Your task to perform on an android device: toggle location history Image 0: 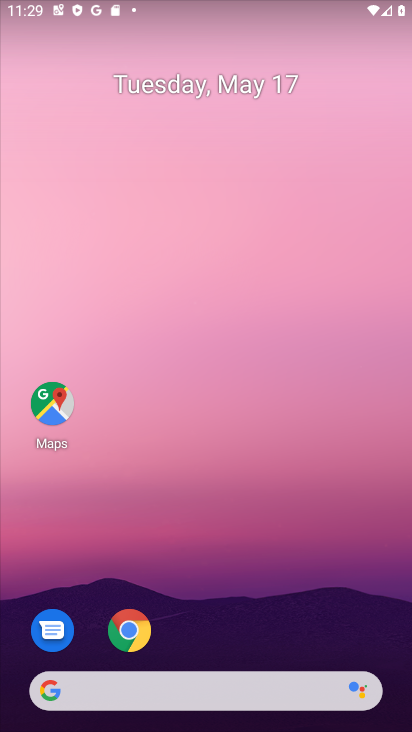
Step 0: drag from (166, 657) to (290, 191)
Your task to perform on an android device: toggle location history Image 1: 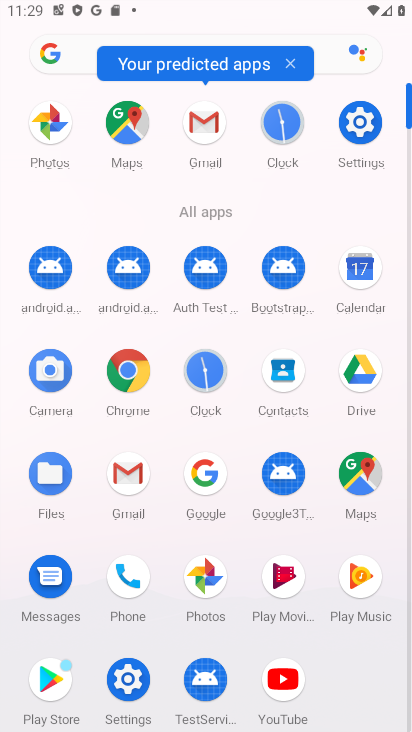
Step 1: drag from (202, 655) to (254, 468)
Your task to perform on an android device: toggle location history Image 2: 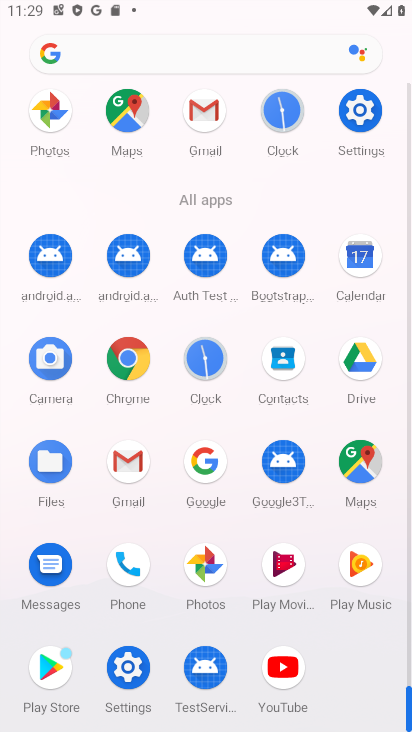
Step 2: click (123, 678)
Your task to perform on an android device: toggle location history Image 3: 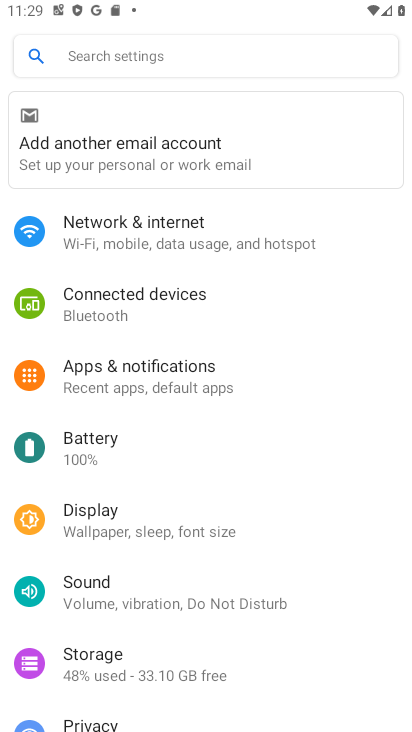
Step 3: drag from (124, 630) to (324, 172)
Your task to perform on an android device: toggle location history Image 4: 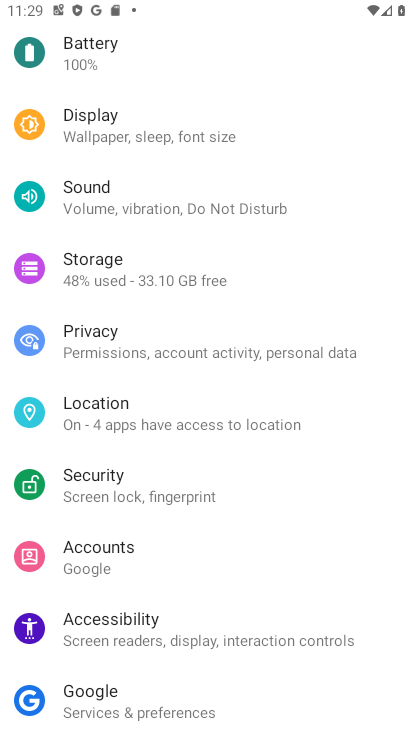
Step 4: click (156, 422)
Your task to perform on an android device: toggle location history Image 5: 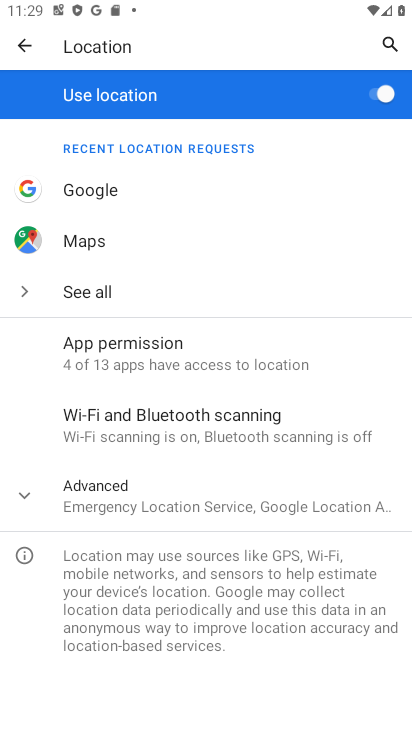
Step 5: click (185, 477)
Your task to perform on an android device: toggle location history Image 6: 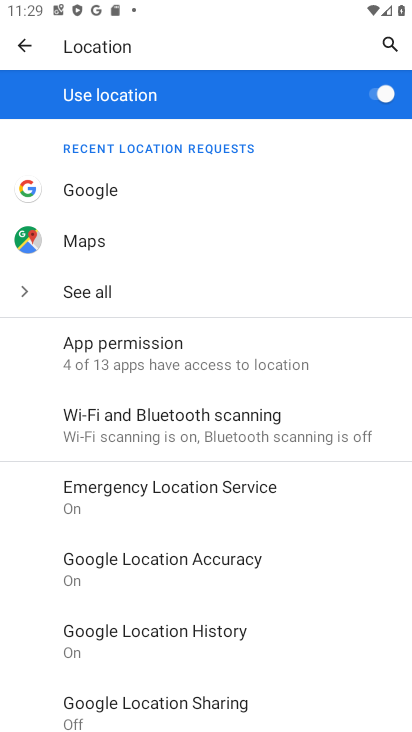
Step 6: drag from (168, 658) to (221, 474)
Your task to perform on an android device: toggle location history Image 7: 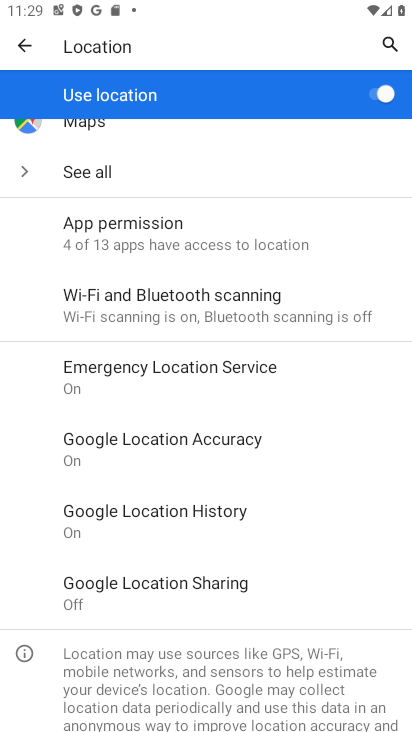
Step 7: click (192, 508)
Your task to perform on an android device: toggle location history Image 8: 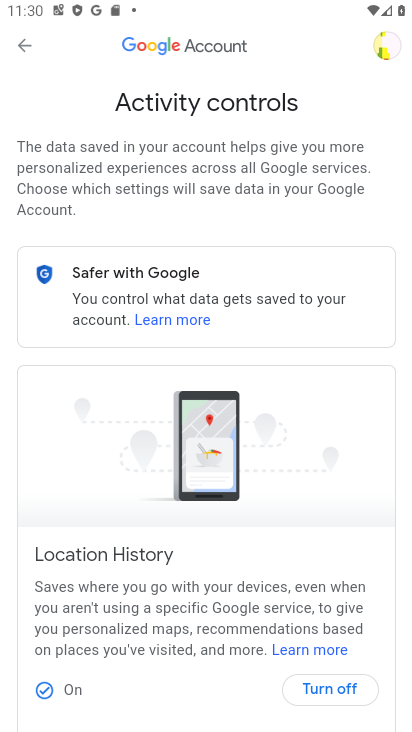
Step 8: drag from (162, 593) to (261, 314)
Your task to perform on an android device: toggle location history Image 9: 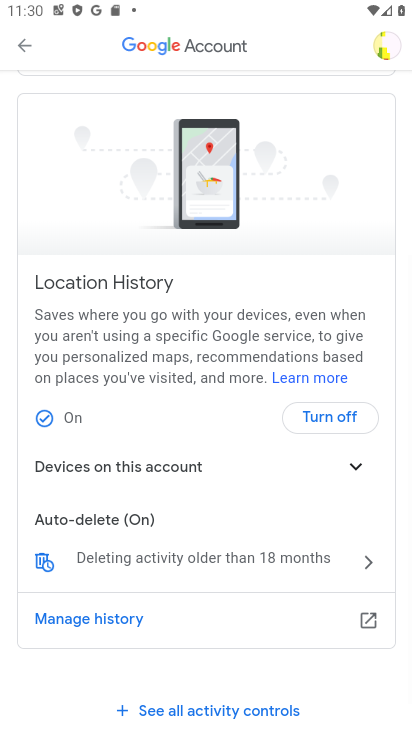
Step 9: click (331, 418)
Your task to perform on an android device: toggle location history Image 10: 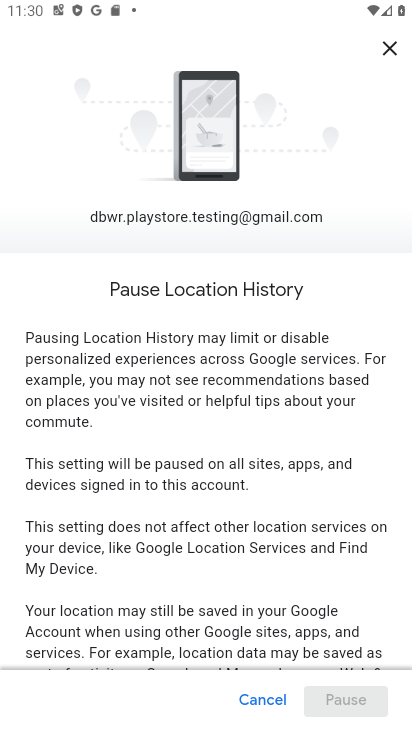
Step 10: drag from (290, 612) to (387, 179)
Your task to perform on an android device: toggle location history Image 11: 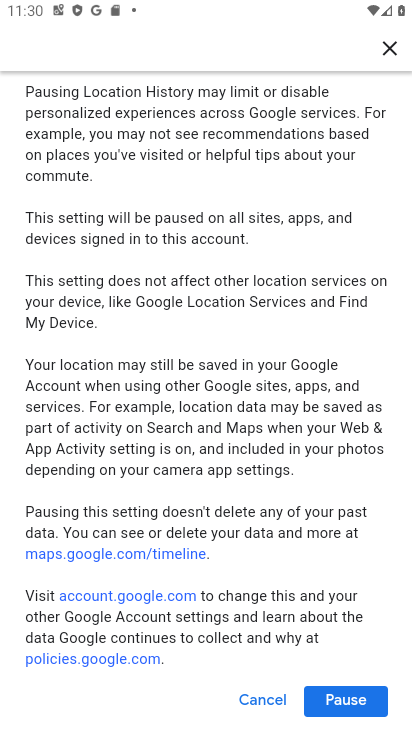
Step 11: drag from (135, 551) to (252, 205)
Your task to perform on an android device: toggle location history Image 12: 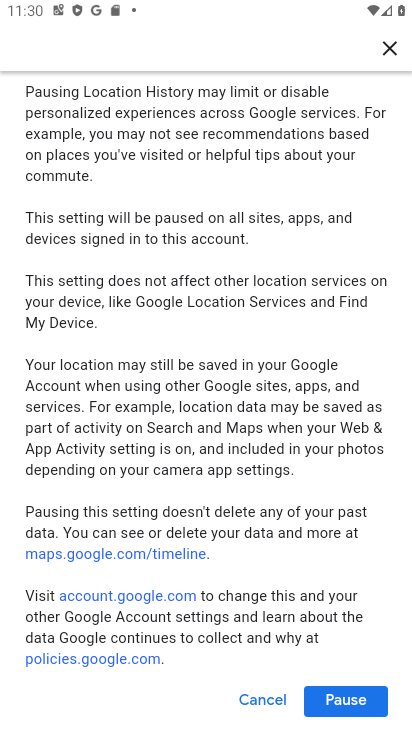
Step 12: click (363, 701)
Your task to perform on an android device: toggle location history Image 13: 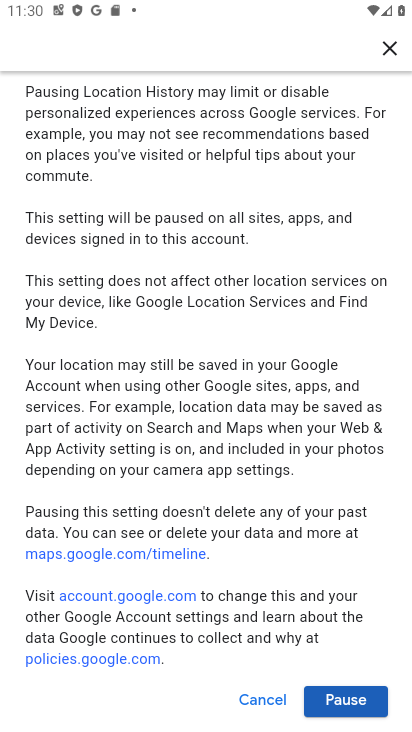
Step 13: click (364, 701)
Your task to perform on an android device: toggle location history Image 14: 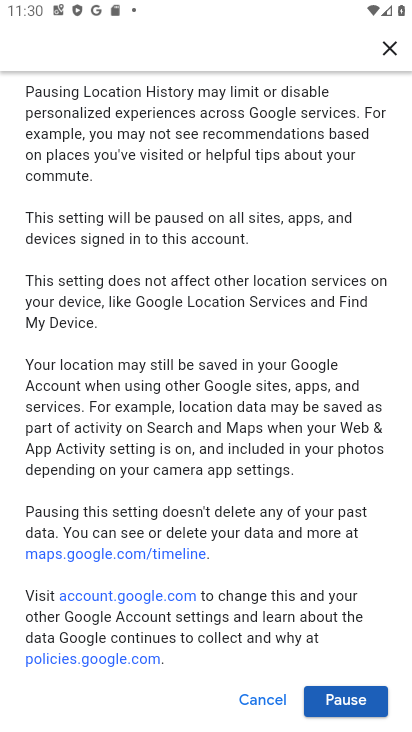
Step 14: click (365, 701)
Your task to perform on an android device: toggle location history Image 15: 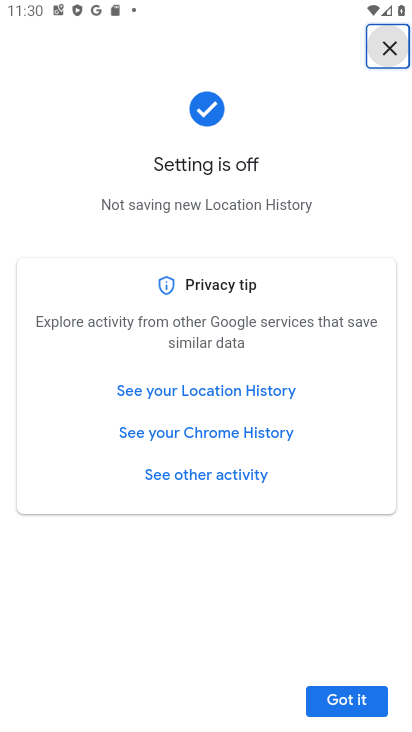
Step 15: click (365, 701)
Your task to perform on an android device: toggle location history Image 16: 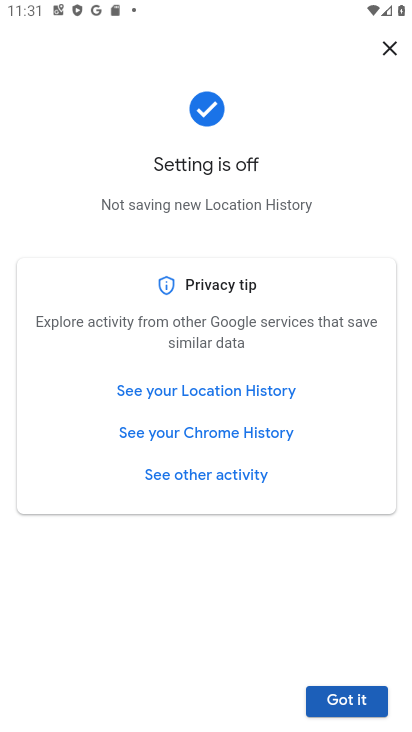
Step 16: click (365, 701)
Your task to perform on an android device: toggle location history Image 17: 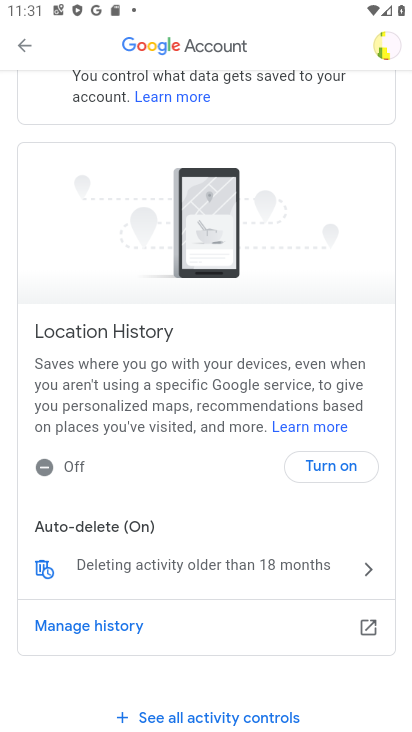
Step 17: task complete